Your task to perform on an android device: What's on my calendar tomorrow? Image 0: 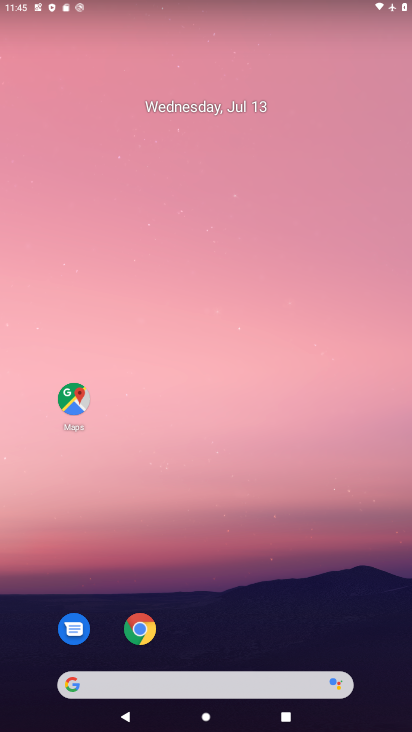
Step 0: drag from (220, 711) to (198, 260)
Your task to perform on an android device: What's on my calendar tomorrow? Image 1: 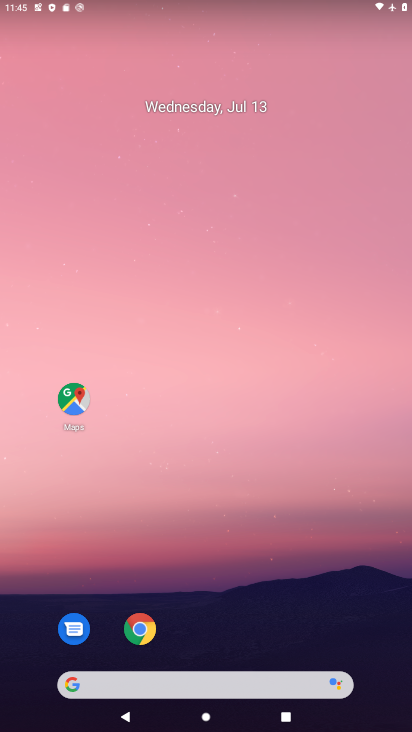
Step 1: drag from (154, 649) to (103, 260)
Your task to perform on an android device: What's on my calendar tomorrow? Image 2: 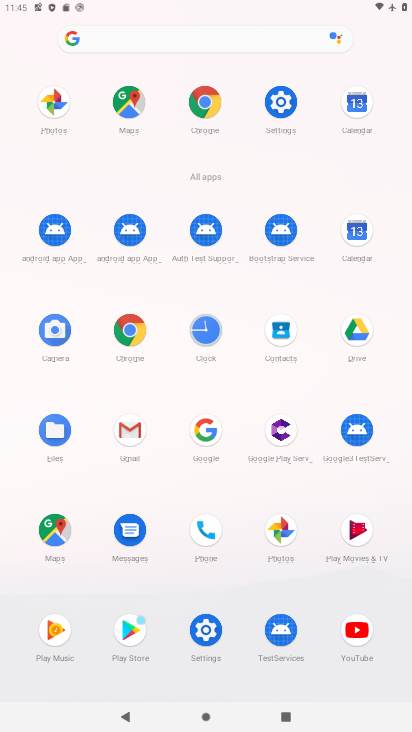
Step 2: click (364, 237)
Your task to perform on an android device: What's on my calendar tomorrow? Image 3: 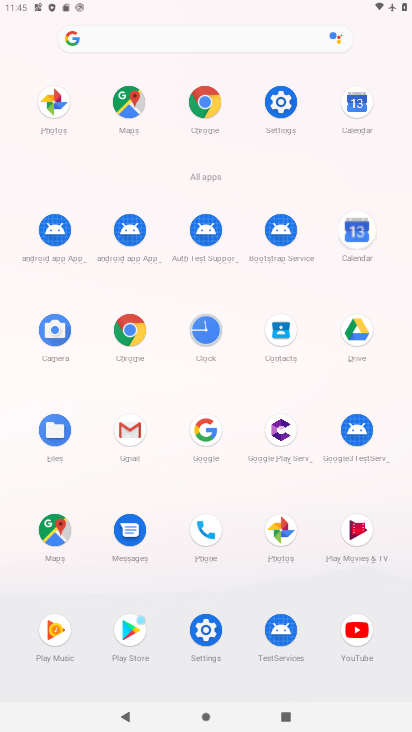
Step 3: click (364, 237)
Your task to perform on an android device: What's on my calendar tomorrow? Image 4: 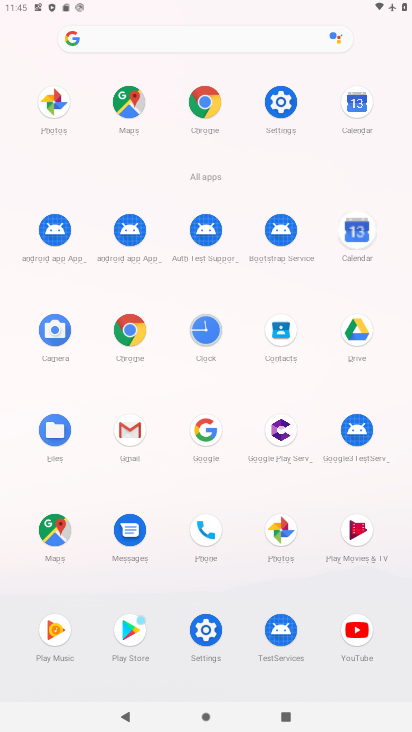
Step 4: click (364, 237)
Your task to perform on an android device: What's on my calendar tomorrow? Image 5: 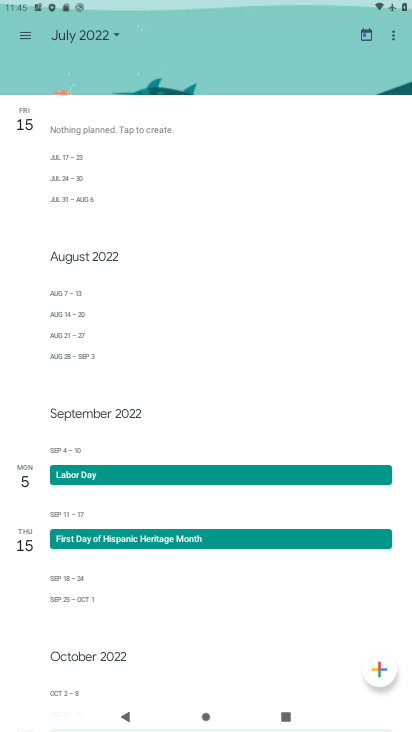
Step 5: click (359, 238)
Your task to perform on an android device: What's on my calendar tomorrow? Image 6: 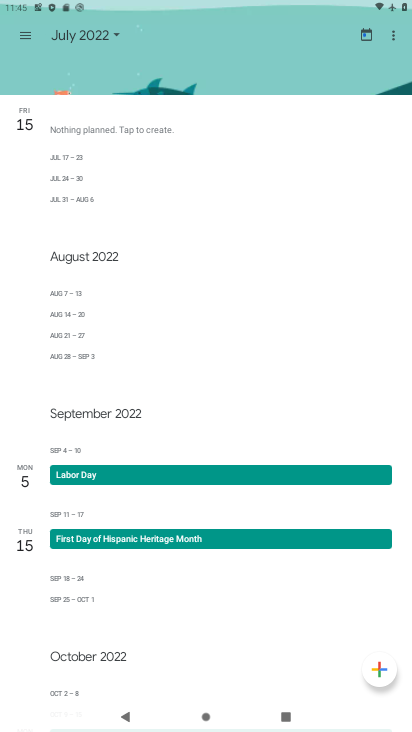
Step 6: click (361, 238)
Your task to perform on an android device: What's on my calendar tomorrow? Image 7: 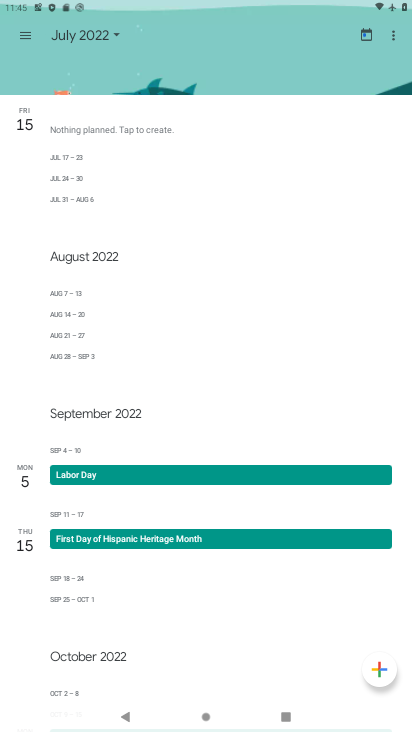
Step 7: click (118, 31)
Your task to perform on an android device: What's on my calendar tomorrow? Image 8: 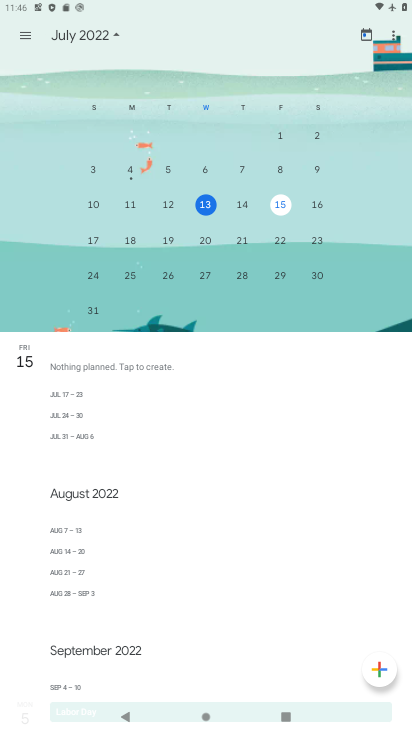
Step 8: click (288, 190)
Your task to perform on an android device: What's on my calendar tomorrow? Image 9: 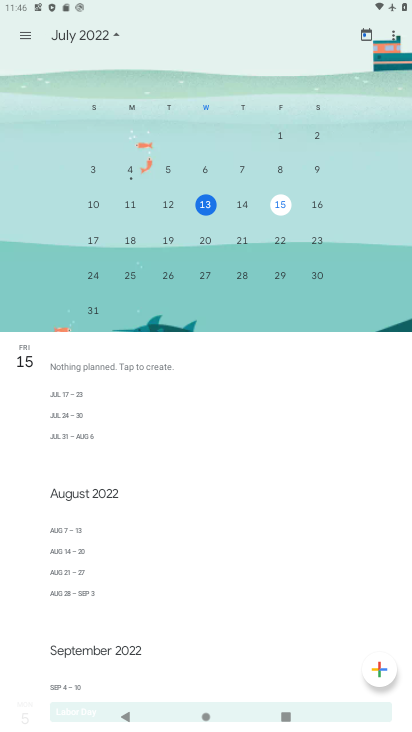
Step 9: click (282, 202)
Your task to perform on an android device: What's on my calendar tomorrow? Image 10: 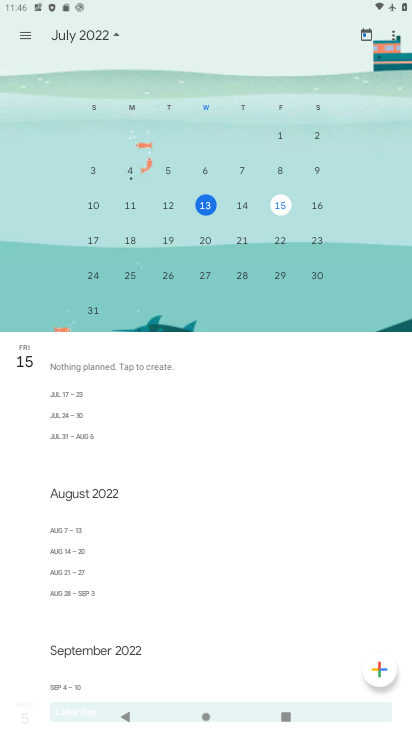
Step 10: click (277, 205)
Your task to perform on an android device: What's on my calendar tomorrow? Image 11: 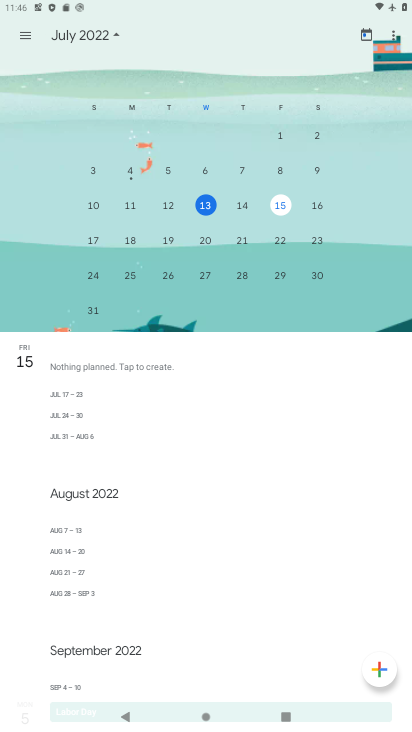
Step 11: click (273, 209)
Your task to perform on an android device: What's on my calendar tomorrow? Image 12: 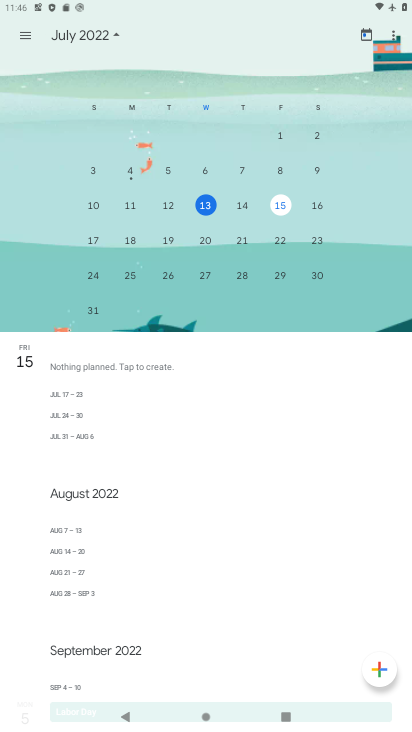
Step 12: click (279, 200)
Your task to perform on an android device: What's on my calendar tomorrow? Image 13: 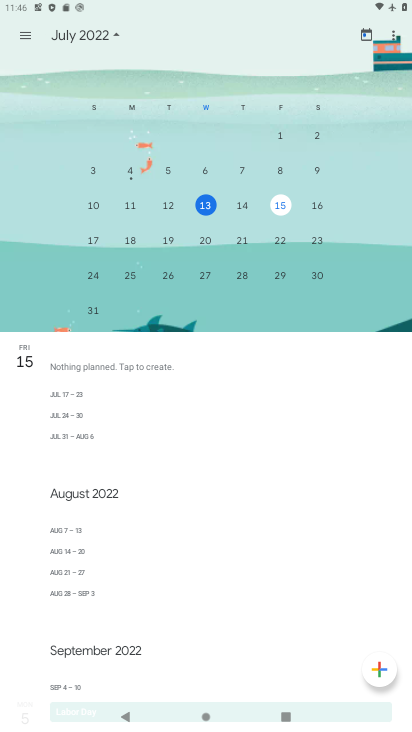
Step 13: click (282, 200)
Your task to perform on an android device: What's on my calendar tomorrow? Image 14: 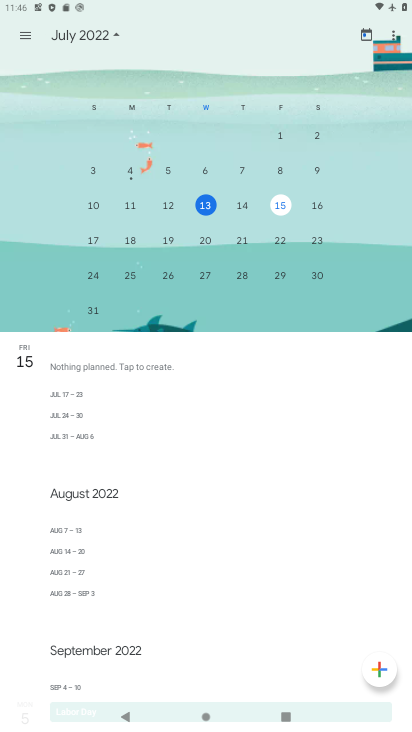
Step 14: click (282, 203)
Your task to perform on an android device: What's on my calendar tomorrow? Image 15: 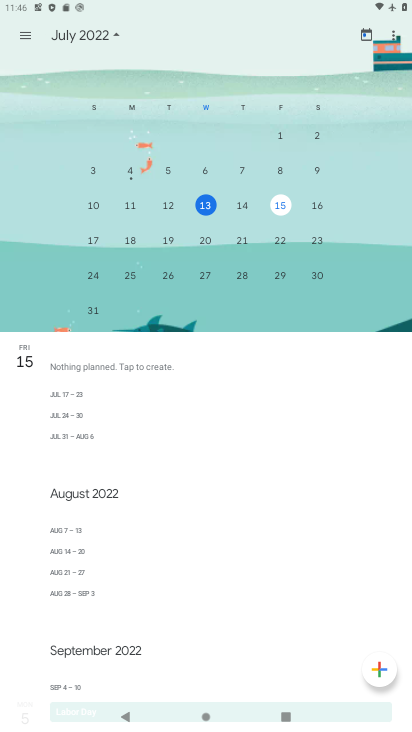
Step 15: click (282, 204)
Your task to perform on an android device: What's on my calendar tomorrow? Image 16: 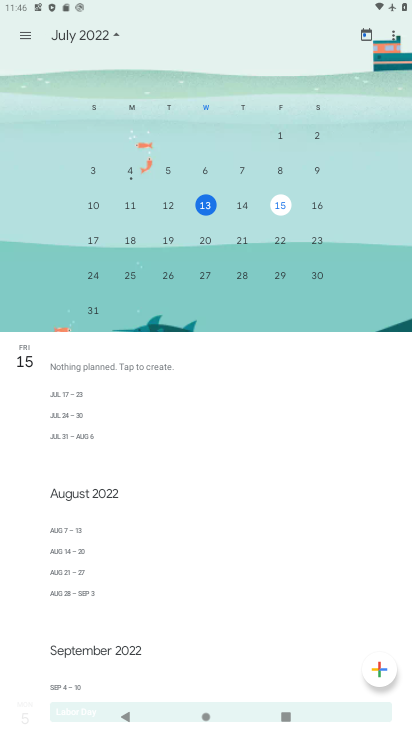
Step 16: click (283, 205)
Your task to perform on an android device: What's on my calendar tomorrow? Image 17: 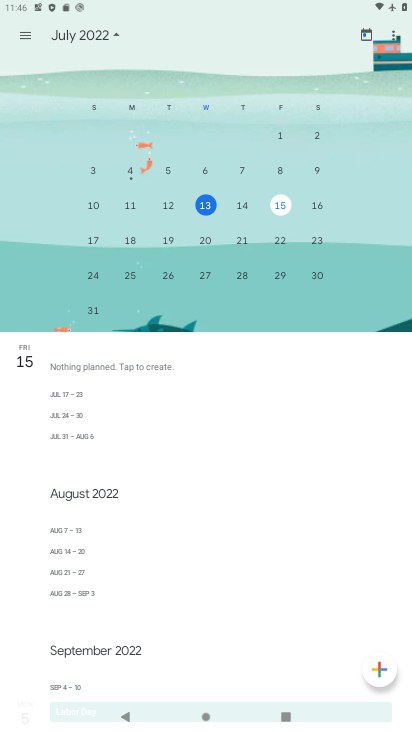
Step 17: click (285, 205)
Your task to perform on an android device: What's on my calendar tomorrow? Image 18: 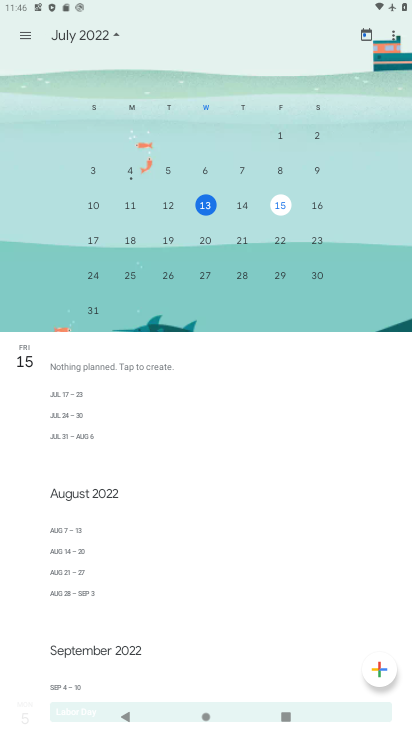
Step 18: click (283, 205)
Your task to perform on an android device: What's on my calendar tomorrow? Image 19: 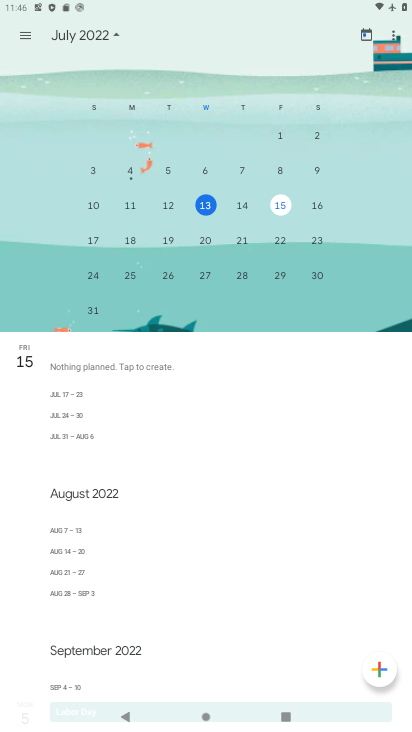
Step 19: click (273, 208)
Your task to perform on an android device: What's on my calendar tomorrow? Image 20: 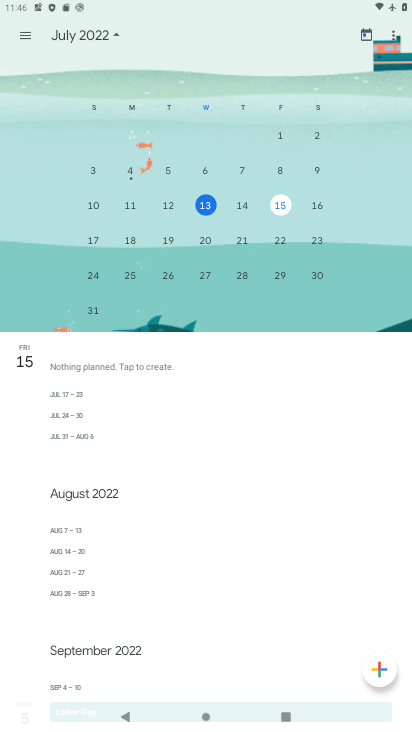
Step 20: task complete